Your task to perform on an android device: Search for macbook pro on amazon, select the first entry, add it to the cart, then select checkout. Image 0: 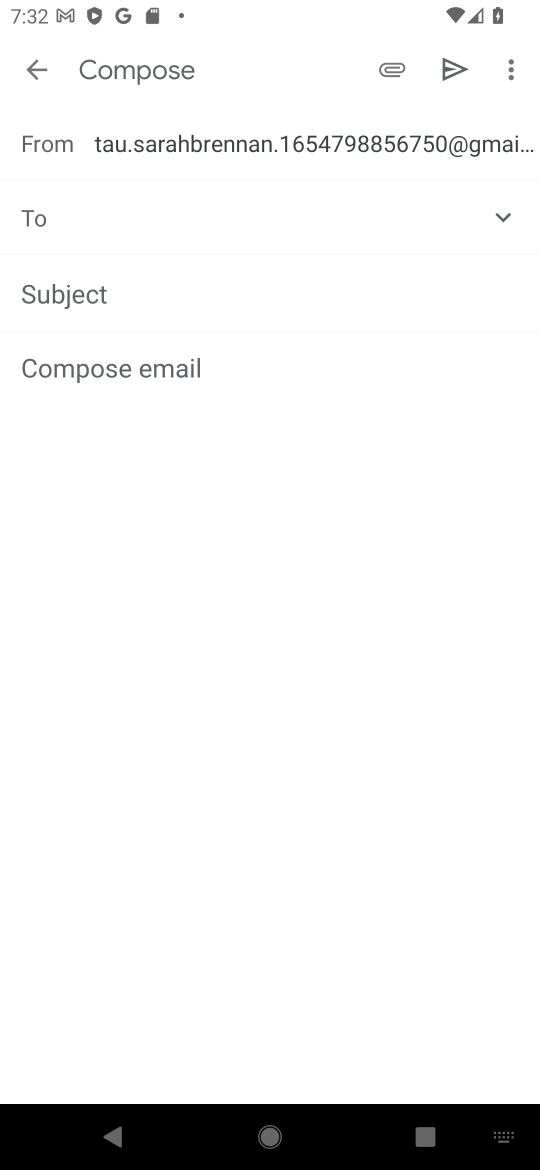
Step 0: press home button
Your task to perform on an android device: Search for macbook pro on amazon, select the first entry, add it to the cart, then select checkout. Image 1: 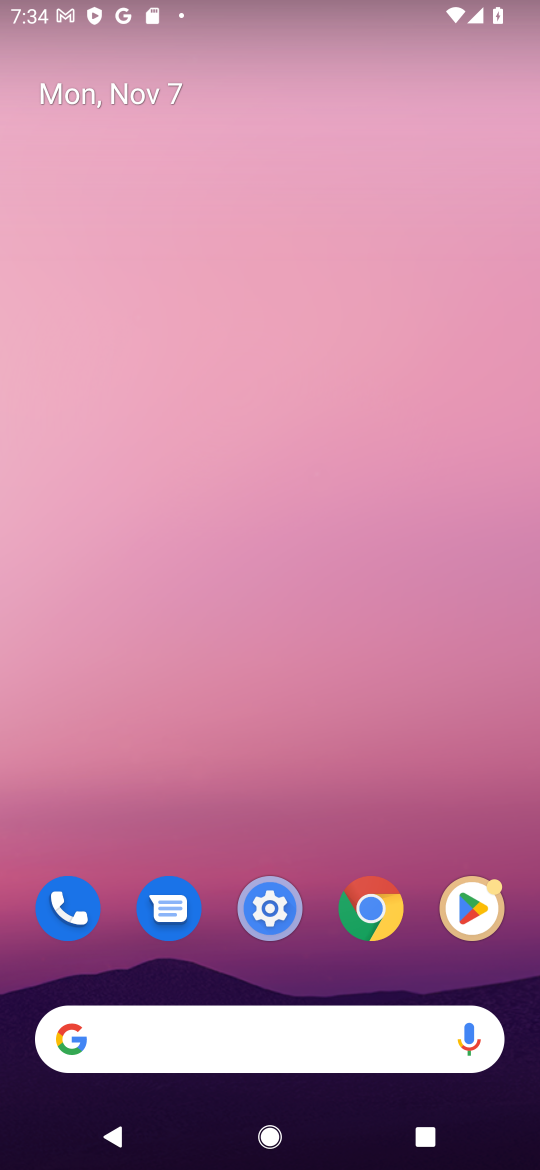
Step 1: click (375, 902)
Your task to perform on an android device: Search for macbook pro on amazon, select the first entry, add it to the cart, then select checkout. Image 2: 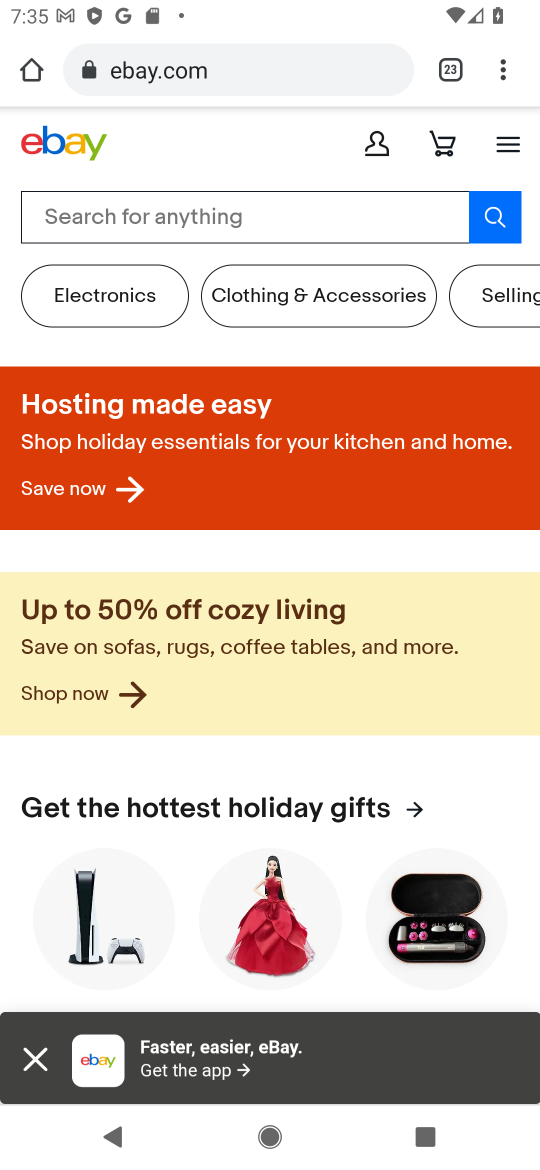
Step 2: task complete